Your task to perform on an android device: Go to CNN.com Image 0: 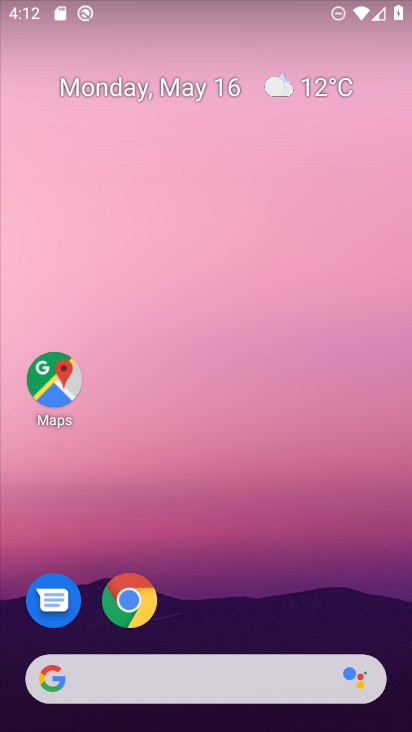
Step 0: click (144, 598)
Your task to perform on an android device: Go to CNN.com Image 1: 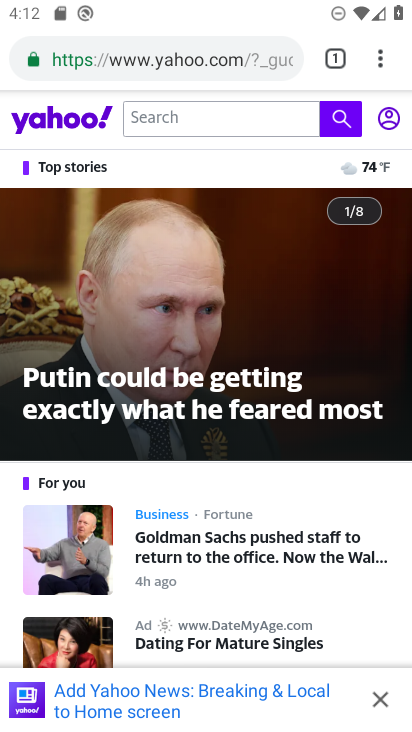
Step 1: click (134, 603)
Your task to perform on an android device: Go to CNN.com Image 2: 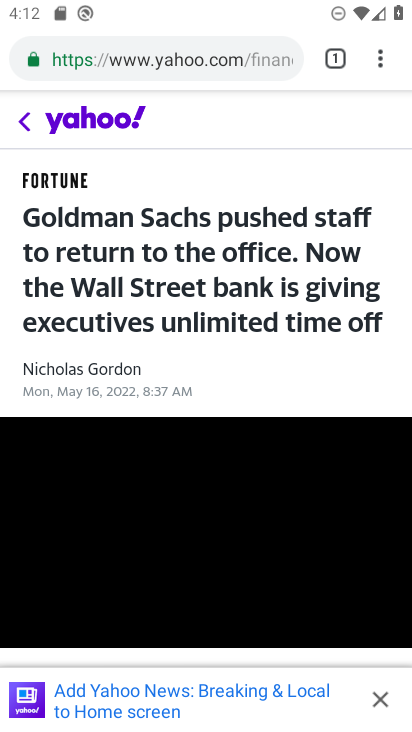
Step 2: click (186, 40)
Your task to perform on an android device: Go to CNN.com Image 3: 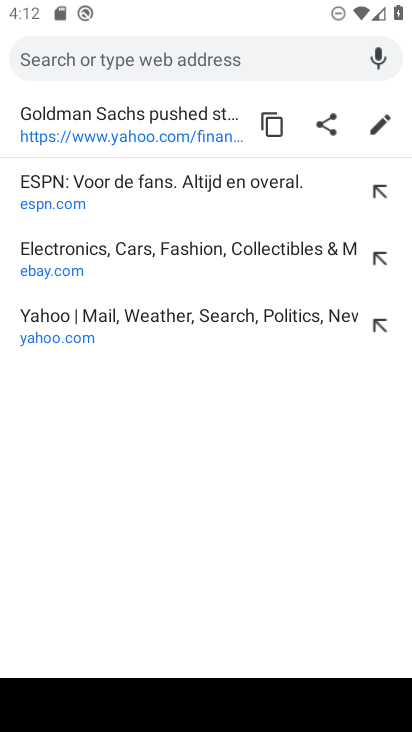
Step 3: type "cnn.com"
Your task to perform on an android device: Go to CNN.com Image 4: 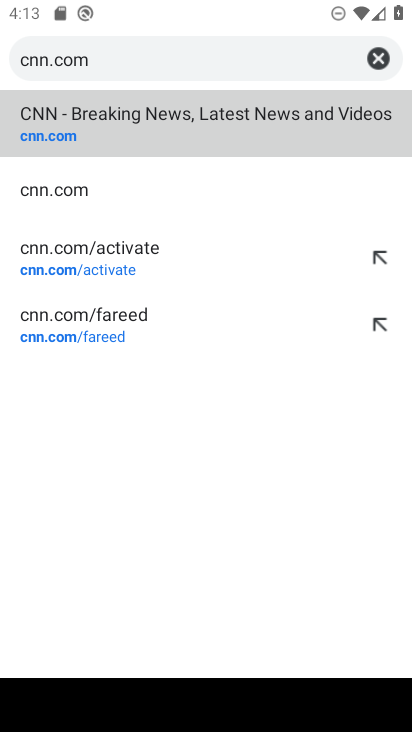
Step 4: click (52, 143)
Your task to perform on an android device: Go to CNN.com Image 5: 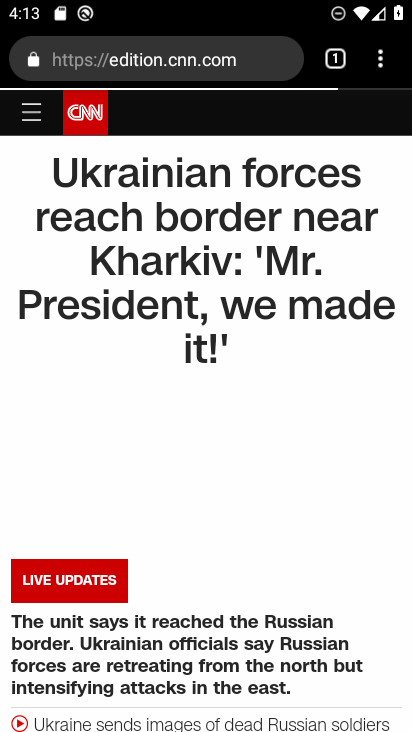
Step 5: task complete